Your task to perform on an android device: check android version Image 0: 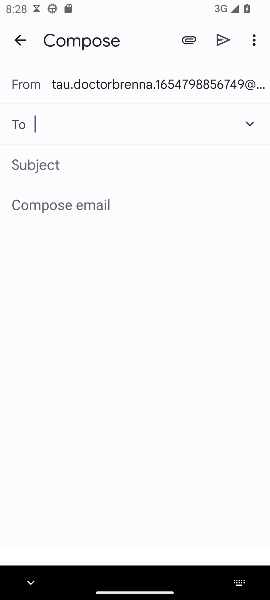
Step 0: press home button
Your task to perform on an android device: check android version Image 1: 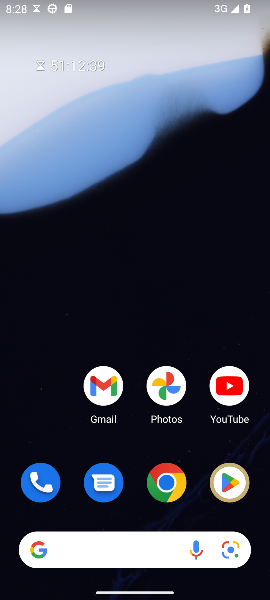
Step 1: drag from (93, 543) to (148, 111)
Your task to perform on an android device: check android version Image 2: 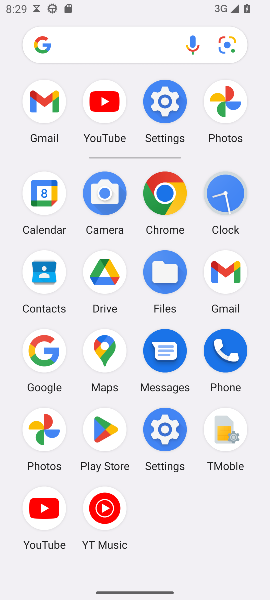
Step 2: click (178, 107)
Your task to perform on an android device: check android version Image 3: 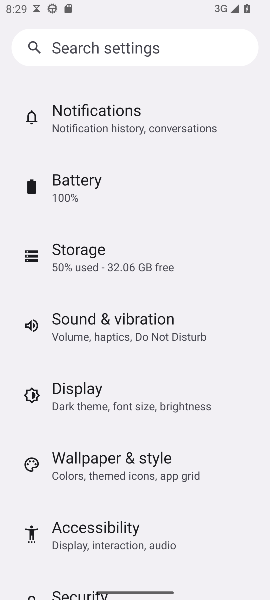
Step 3: drag from (120, 428) to (135, 144)
Your task to perform on an android device: check android version Image 4: 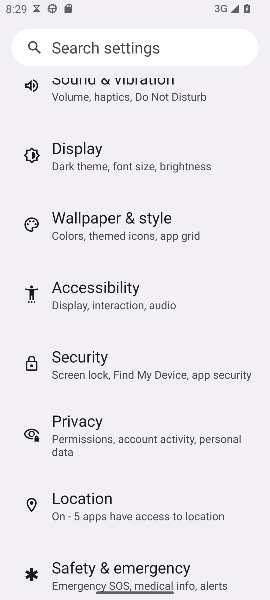
Step 4: drag from (94, 488) to (100, 233)
Your task to perform on an android device: check android version Image 5: 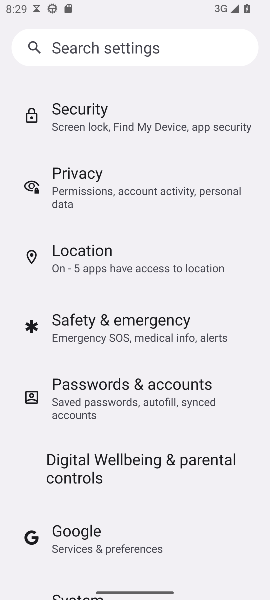
Step 5: drag from (103, 531) to (146, 163)
Your task to perform on an android device: check android version Image 6: 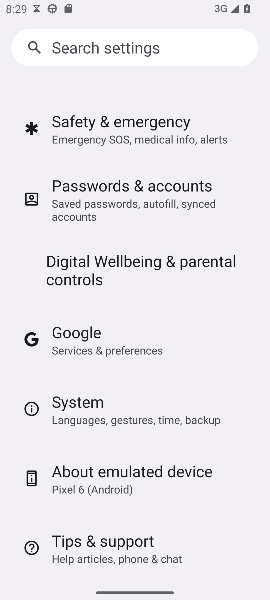
Step 6: click (132, 252)
Your task to perform on an android device: check android version Image 7: 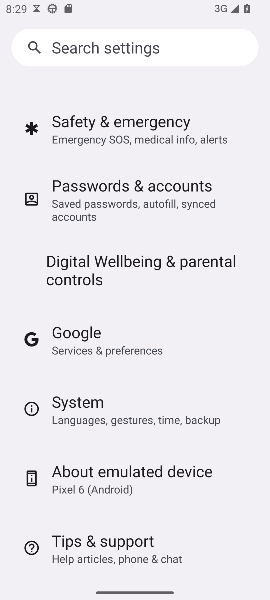
Step 7: click (122, 490)
Your task to perform on an android device: check android version Image 8: 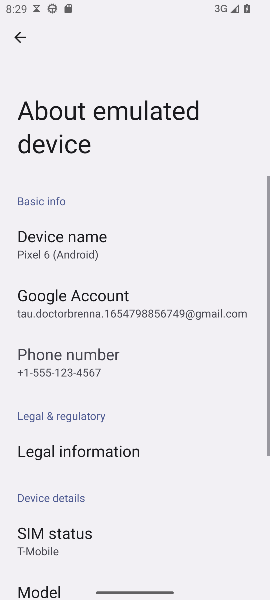
Step 8: drag from (136, 553) to (116, 240)
Your task to perform on an android device: check android version Image 9: 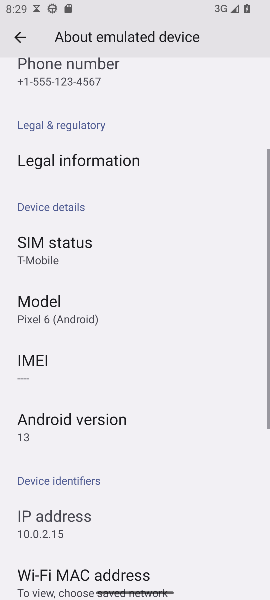
Step 9: click (75, 436)
Your task to perform on an android device: check android version Image 10: 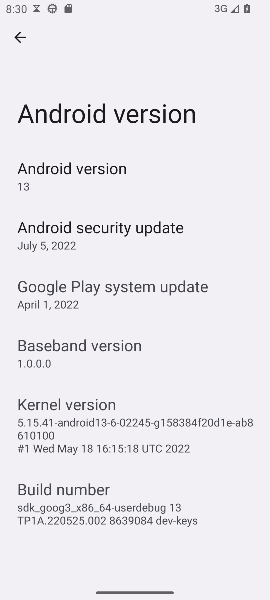
Step 10: task complete